Your task to perform on an android device: turn on bluetooth scan Image 0: 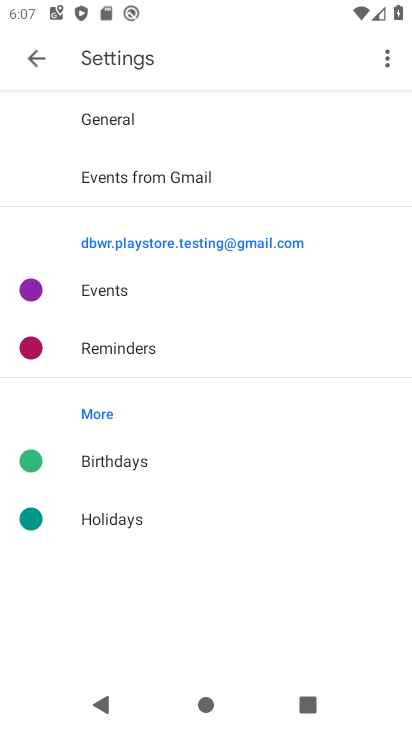
Step 0: press home button
Your task to perform on an android device: turn on bluetooth scan Image 1: 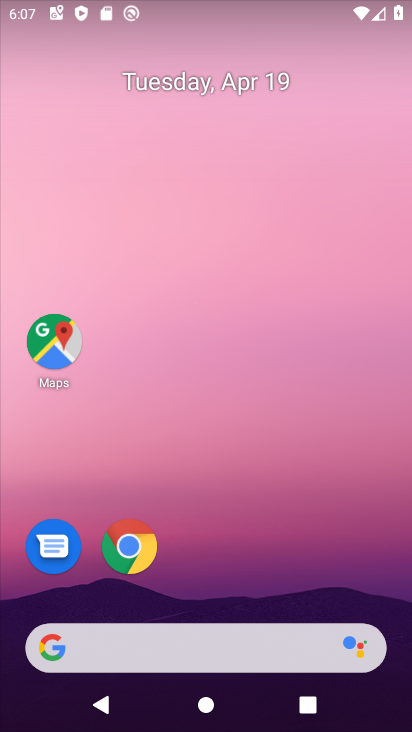
Step 1: drag from (283, 510) to (291, 81)
Your task to perform on an android device: turn on bluetooth scan Image 2: 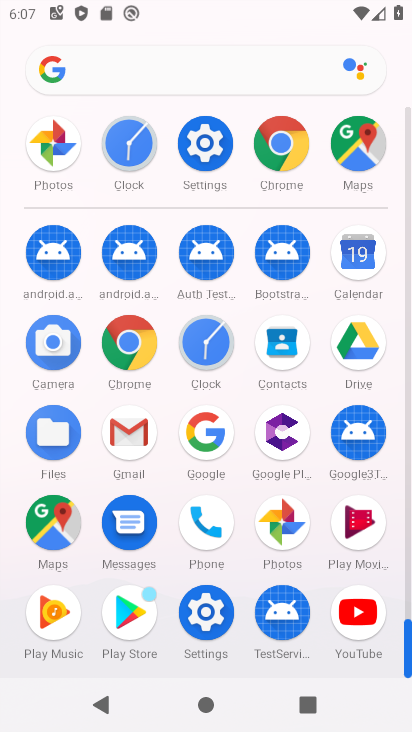
Step 2: click (200, 134)
Your task to perform on an android device: turn on bluetooth scan Image 3: 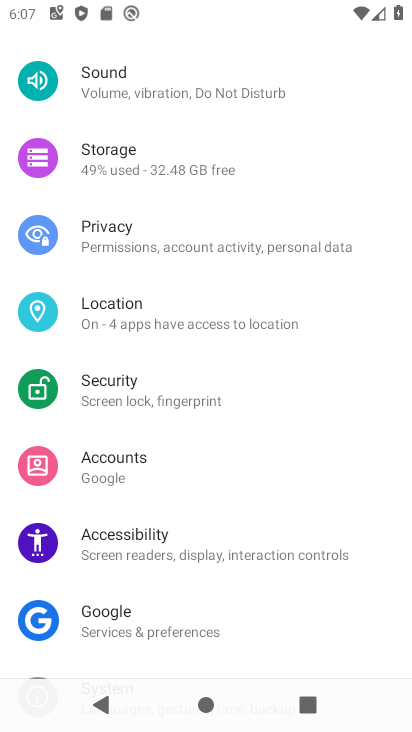
Step 3: drag from (246, 608) to (353, 129)
Your task to perform on an android device: turn on bluetooth scan Image 4: 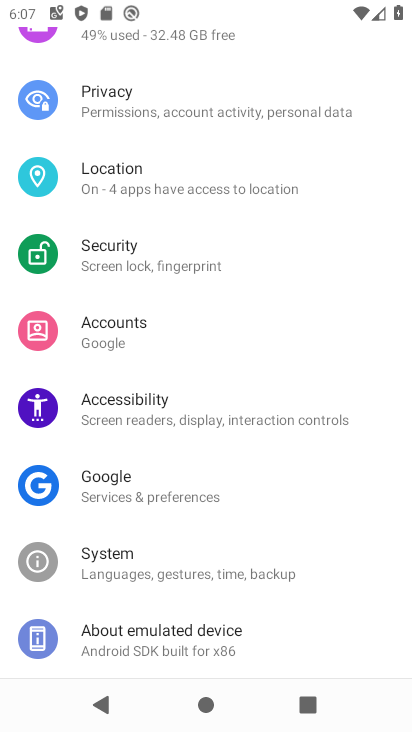
Step 4: click (178, 183)
Your task to perform on an android device: turn on bluetooth scan Image 5: 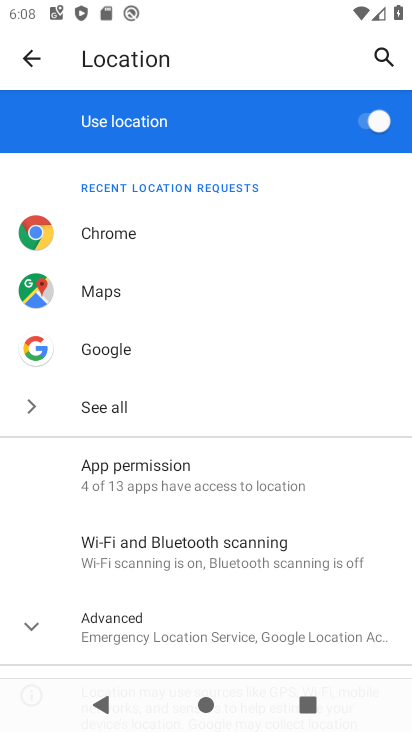
Step 5: click (186, 622)
Your task to perform on an android device: turn on bluetooth scan Image 6: 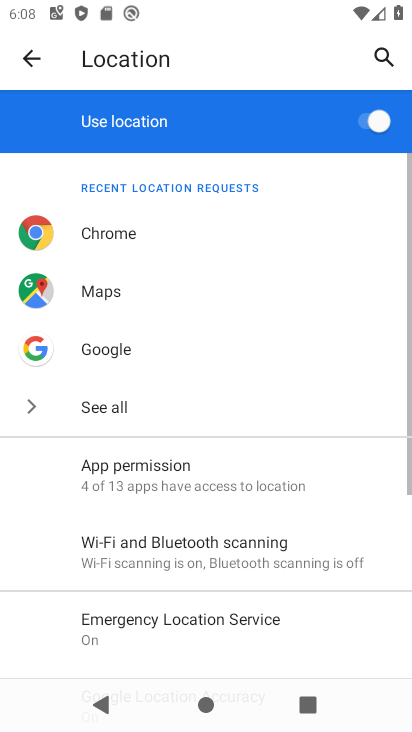
Step 6: click (252, 564)
Your task to perform on an android device: turn on bluetooth scan Image 7: 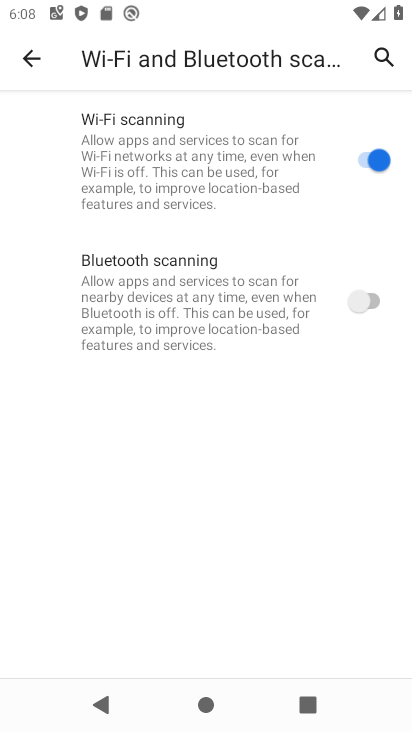
Step 7: click (350, 305)
Your task to perform on an android device: turn on bluetooth scan Image 8: 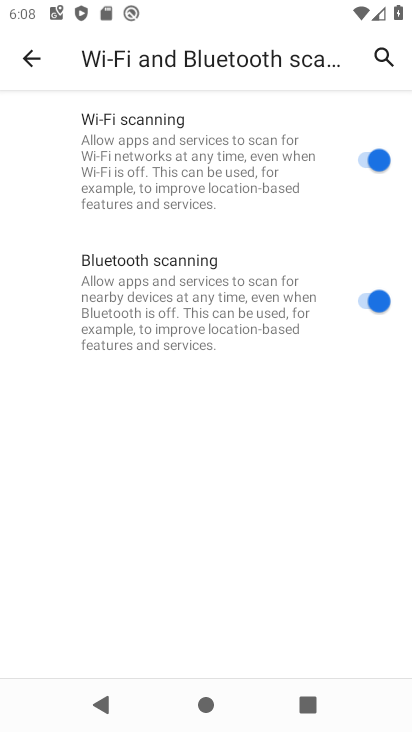
Step 8: task complete